Your task to perform on an android device: Open network settings Image 0: 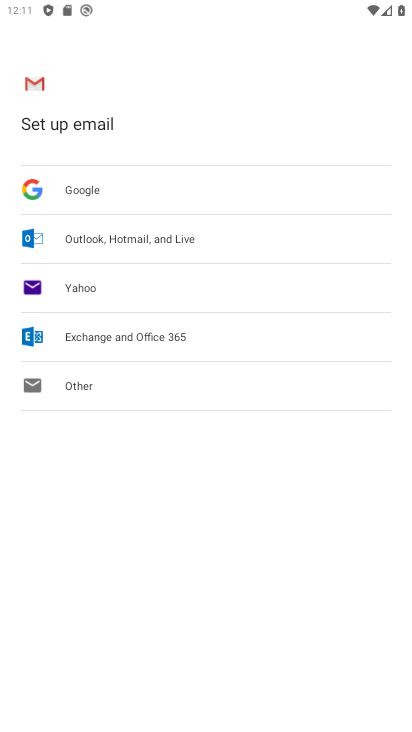
Step 0: press home button
Your task to perform on an android device: Open network settings Image 1: 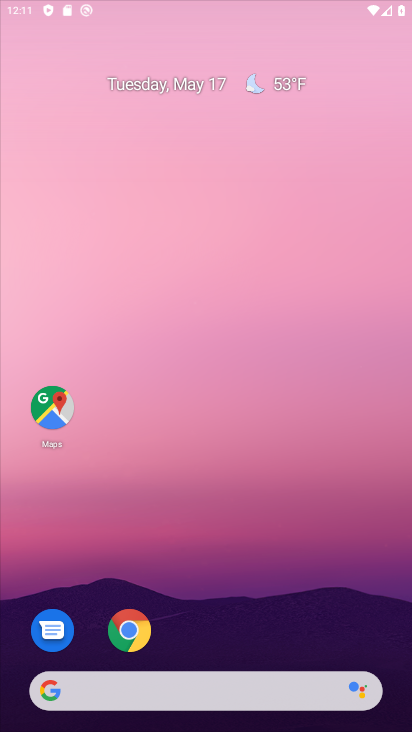
Step 1: drag from (181, 659) to (195, 226)
Your task to perform on an android device: Open network settings Image 2: 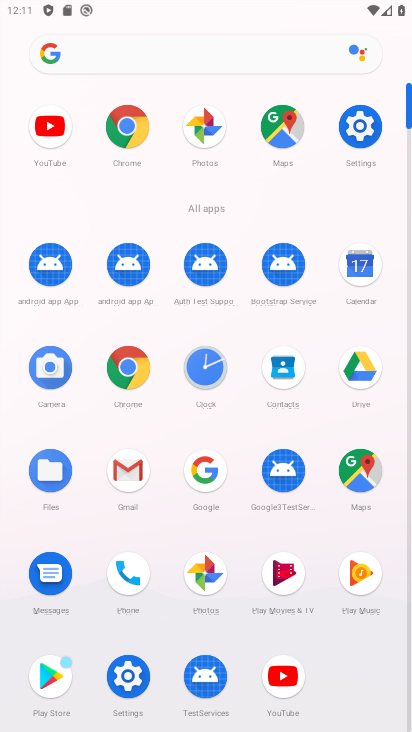
Step 2: click (362, 136)
Your task to perform on an android device: Open network settings Image 3: 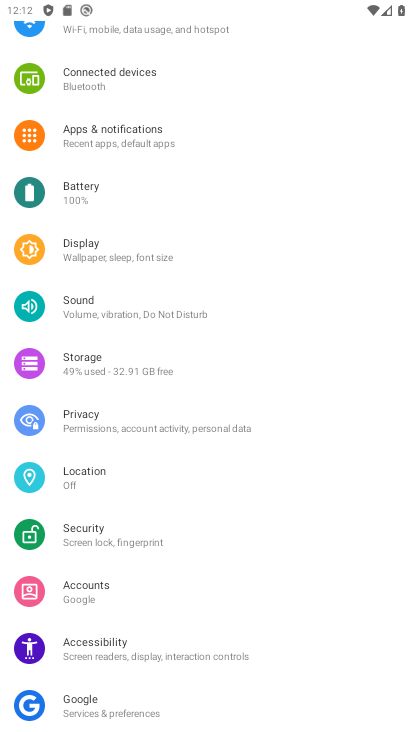
Step 3: drag from (152, 291) to (134, 696)
Your task to perform on an android device: Open network settings Image 4: 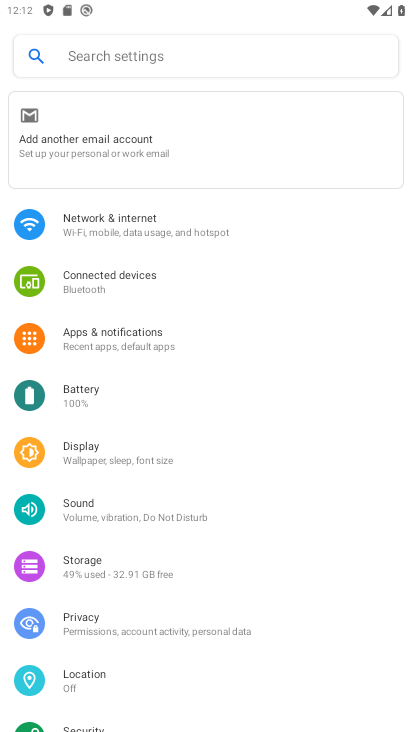
Step 4: click (219, 239)
Your task to perform on an android device: Open network settings Image 5: 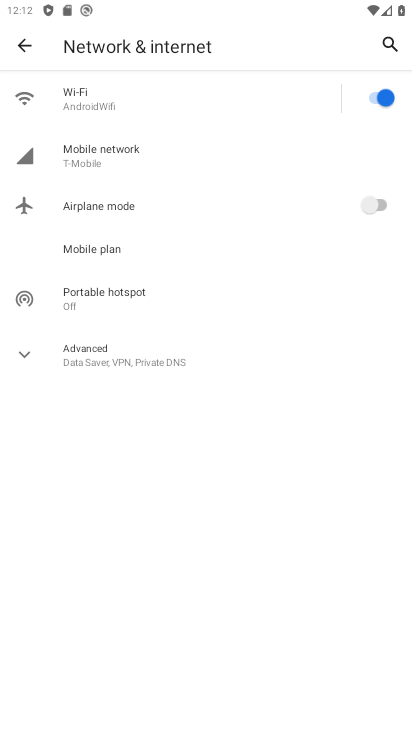
Step 5: click (164, 158)
Your task to perform on an android device: Open network settings Image 6: 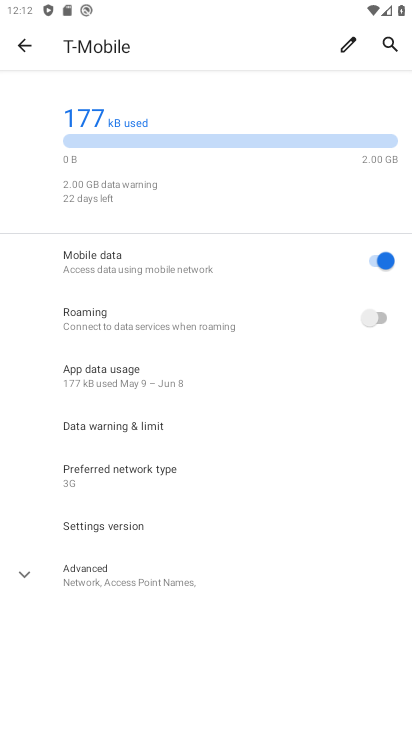
Step 6: task complete